Your task to perform on an android device: Open Maps and search for coffee Image 0: 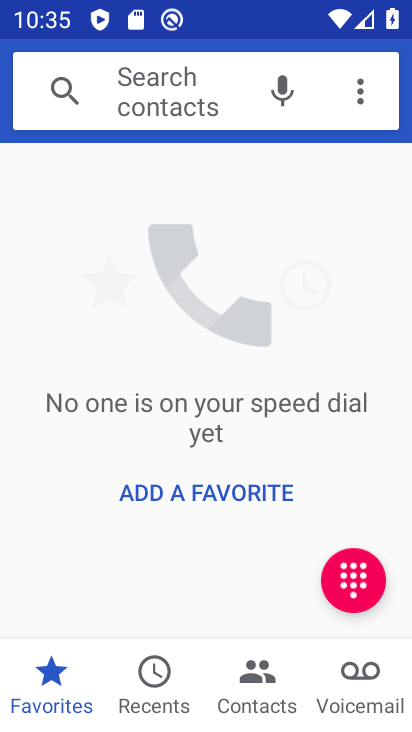
Step 0: press home button
Your task to perform on an android device: Open Maps and search for coffee Image 1: 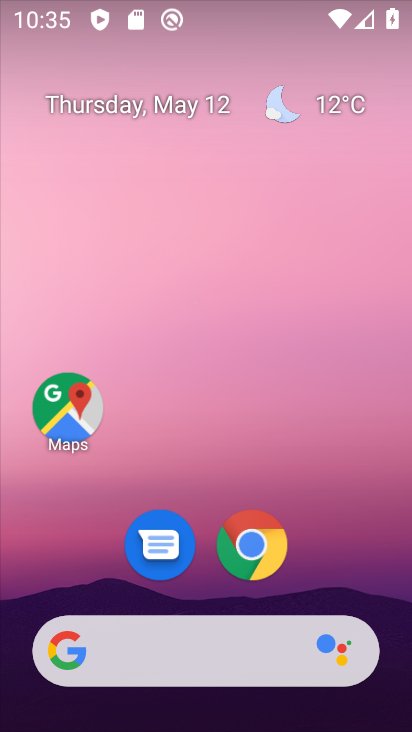
Step 1: click (64, 407)
Your task to perform on an android device: Open Maps and search for coffee Image 2: 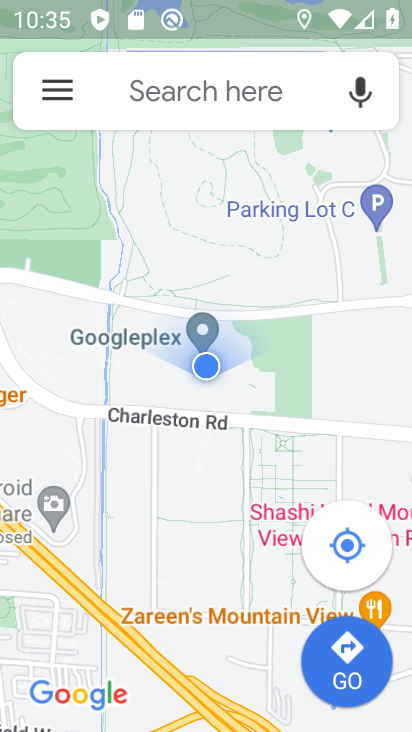
Step 2: click (154, 86)
Your task to perform on an android device: Open Maps and search for coffee Image 3: 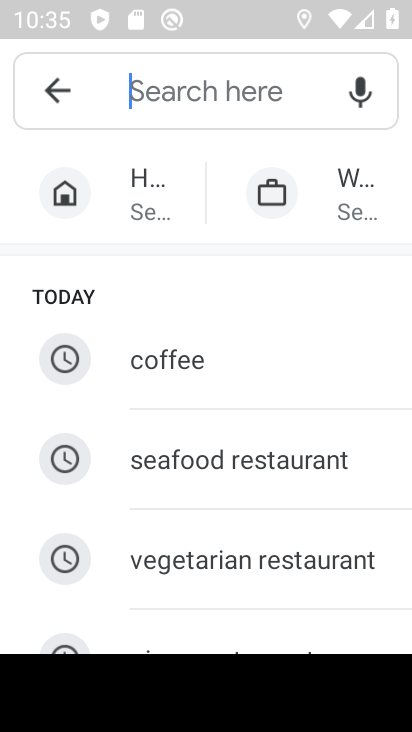
Step 3: click (159, 381)
Your task to perform on an android device: Open Maps and search for coffee Image 4: 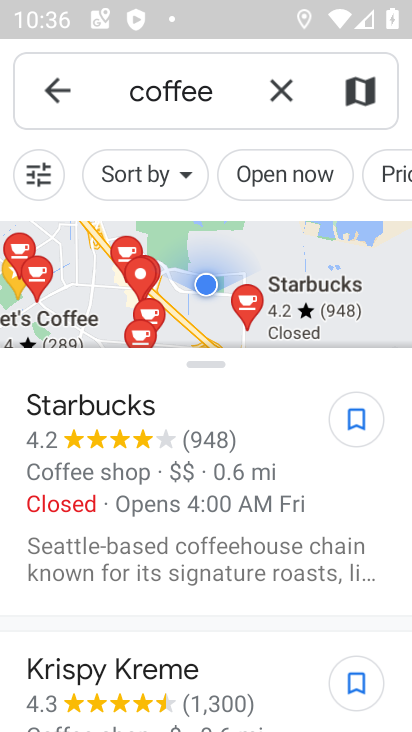
Step 4: task complete